Your task to perform on an android device: open app "Duolingo: language lessons" Image 0: 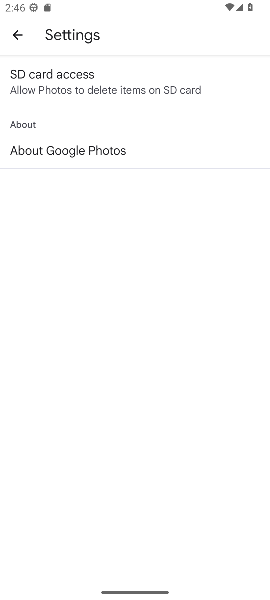
Step 0: press home button
Your task to perform on an android device: open app "Duolingo: language lessons" Image 1: 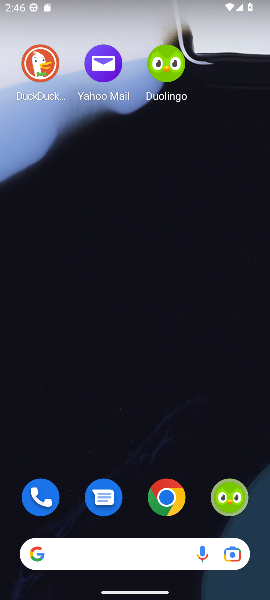
Step 1: drag from (130, 545) to (143, 213)
Your task to perform on an android device: open app "Duolingo: language lessons" Image 2: 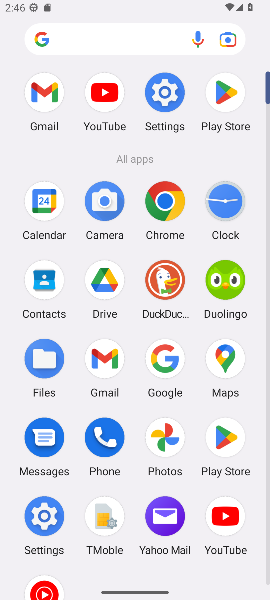
Step 2: click (227, 95)
Your task to perform on an android device: open app "Duolingo: language lessons" Image 3: 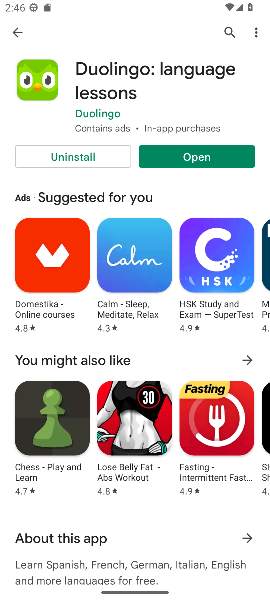
Step 3: click (217, 158)
Your task to perform on an android device: open app "Duolingo: language lessons" Image 4: 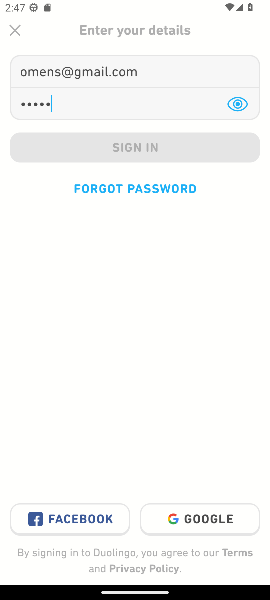
Step 4: task complete